Your task to perform on an android device: check android version Image 0: 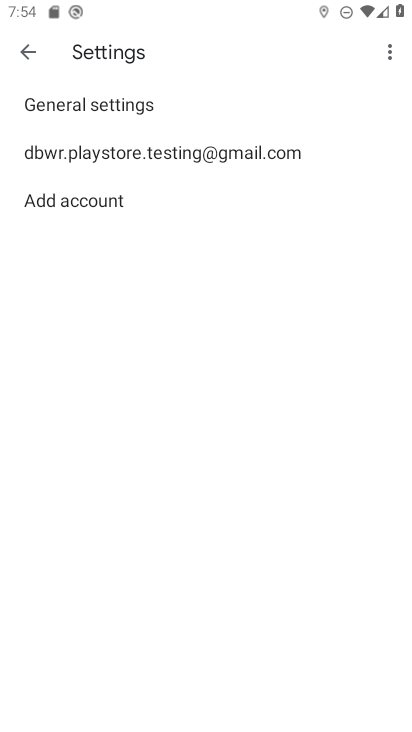
Step 0: press home button
Your task to perform on an android device: check android version Image 1: 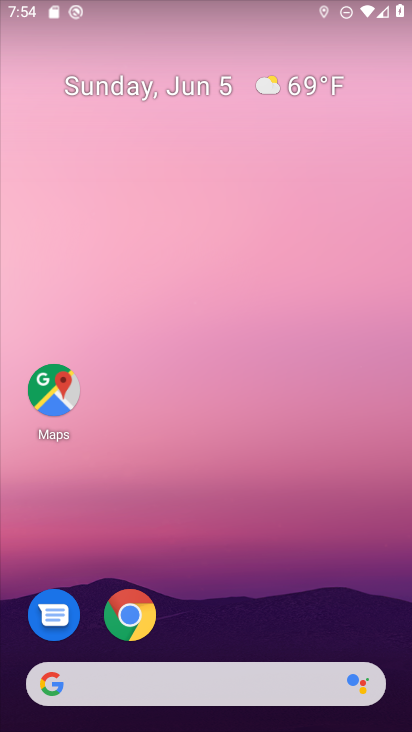
Step 1: drag from (221, 639) to (204, 181)
Your task to perform on an android device: check android version Image 2: 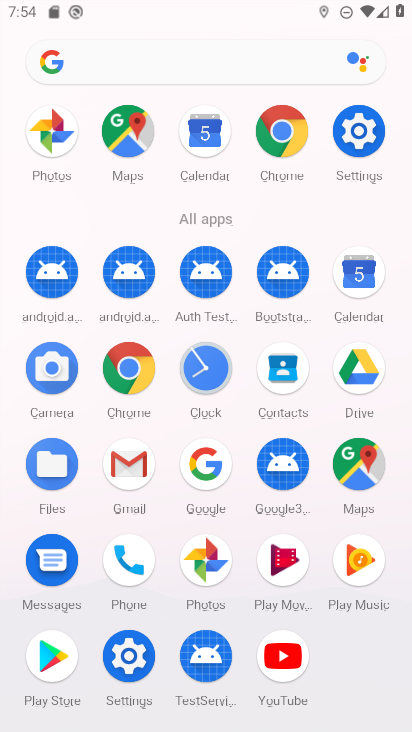
Step 2: click (360, 141)
Your task to perform on an android device: check android version Image 3: 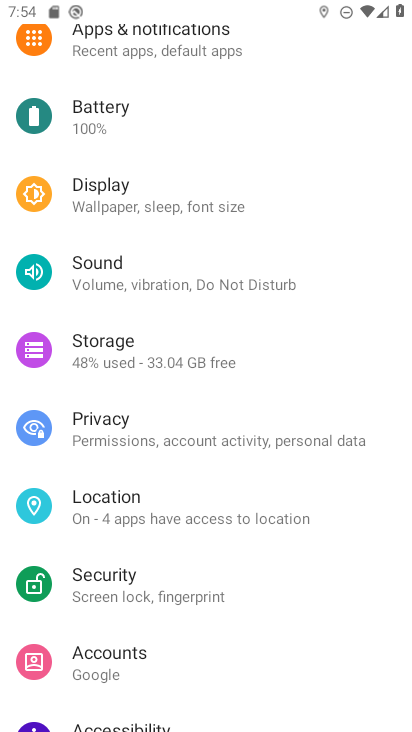
Step 3: drag from (174, 621) to (174, 324)
Your task to perform on an android device: check android version Image 4: 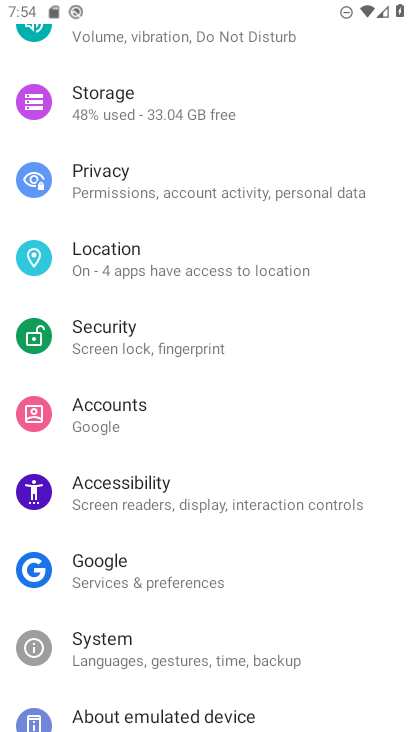
Step 4: drag from (173, 702) to (207, 419)
Your task to perform on an android device: check android version Image 5: 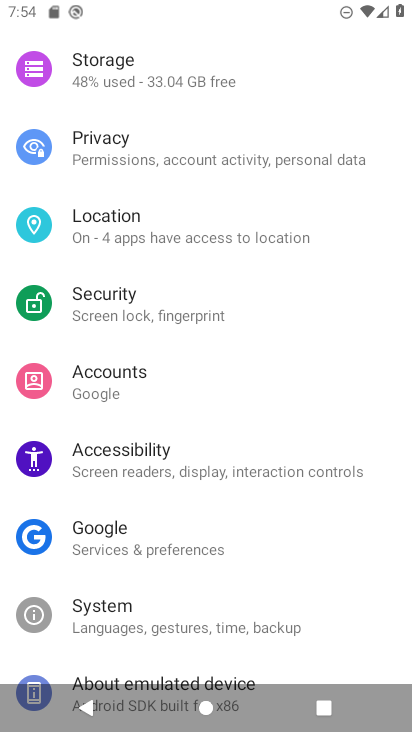
Step 5: click (114, 676)
Your task to perform on an android device: check android version Image 6: 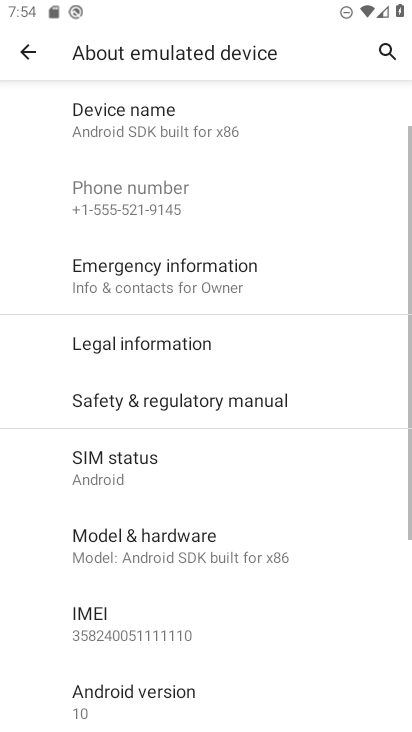
Step 6: drag from (120, 626) to (211, 364)
Your task to perform on an android device: check android version Image 7: 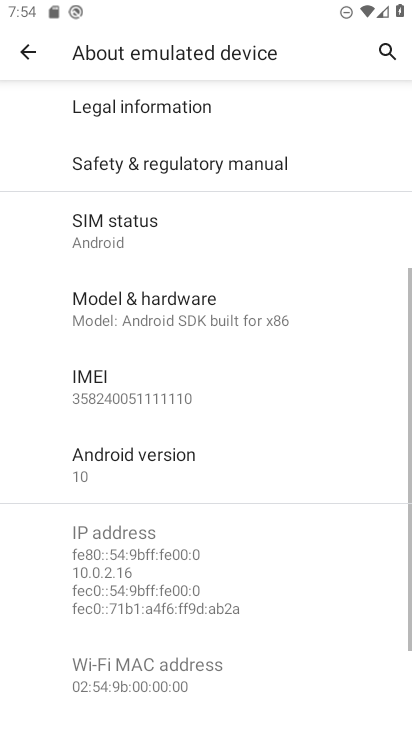
Step 7: click (122, 485)
Your task to perform on an android device: check android version Image 8: 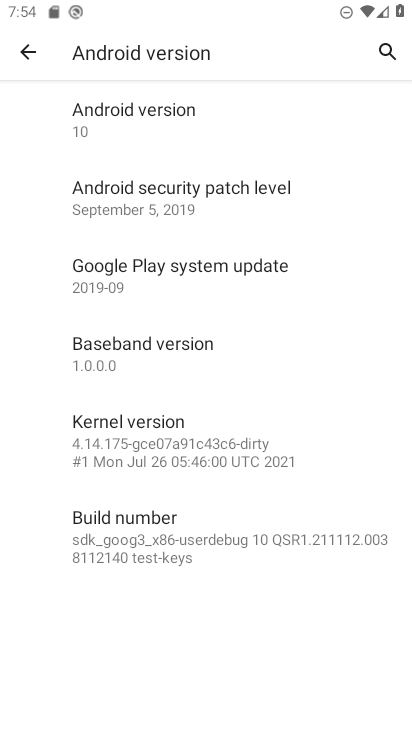
Step 8: task complete